Your task to perform on an android device: empty trash in google photos Image 0: 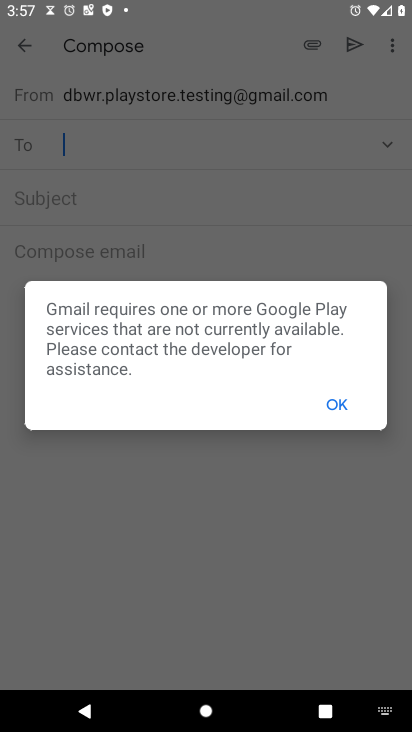
Step 0: click (344, 396)
Your task to perform on an android device: empty trash in google photos Image 1: 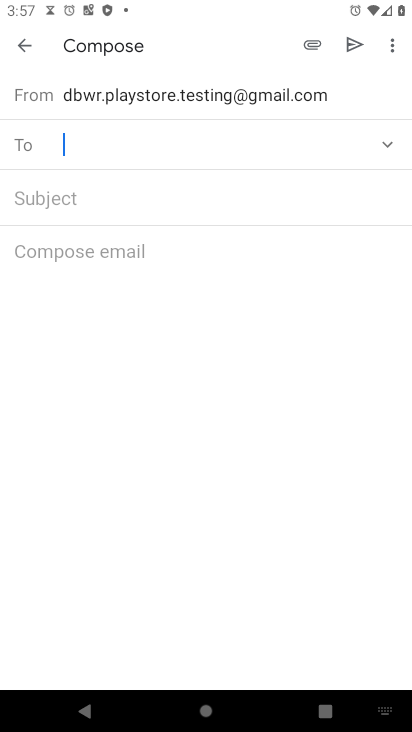
Step 1: press back button
Your task to perform on an android device: empty trash in google photos Image 2: 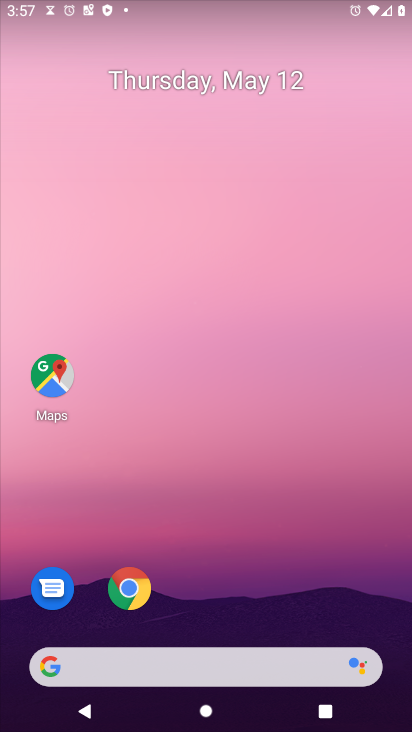
Step 2: drag from (200, 564) to (223, 77)
Your task to perform on an android device: empty trash in google photos Image 3: 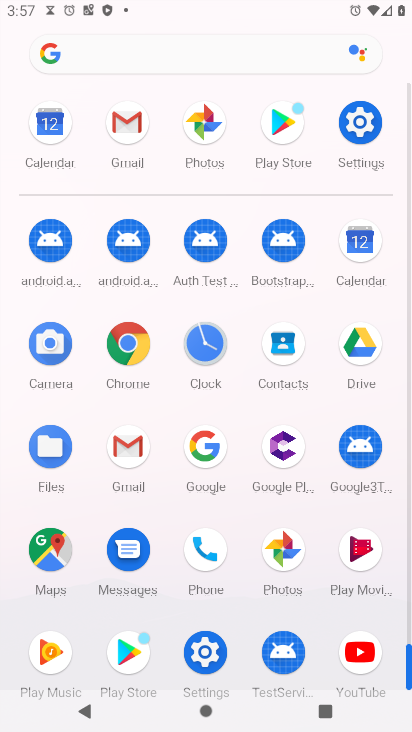
Step 3: click (283, 543)
Your task to perform on an android device: empty trash in google photos Image 4: 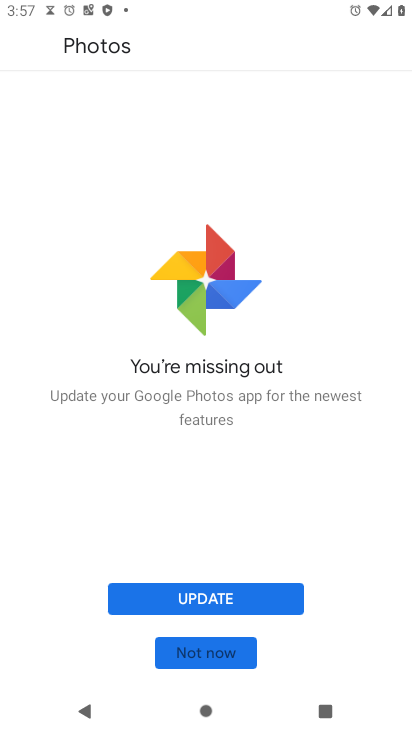
Step 4: click (215, 647)
Your task to perform on an android device: empty trash in google photos Image 5: 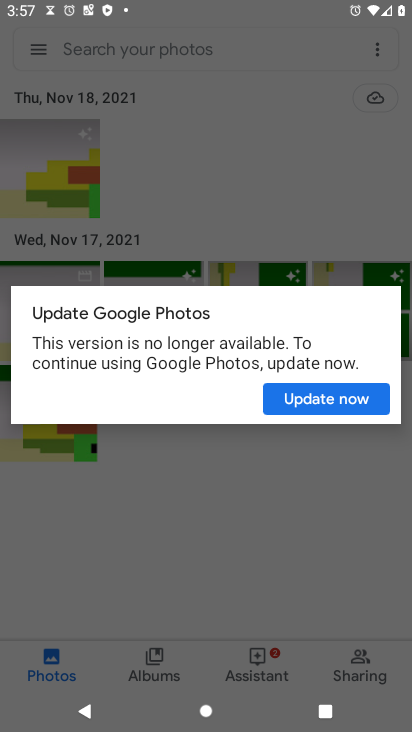
Step 5: click (330, 406)
Your task to perform on an android device: empty trash in google photos Image 6: 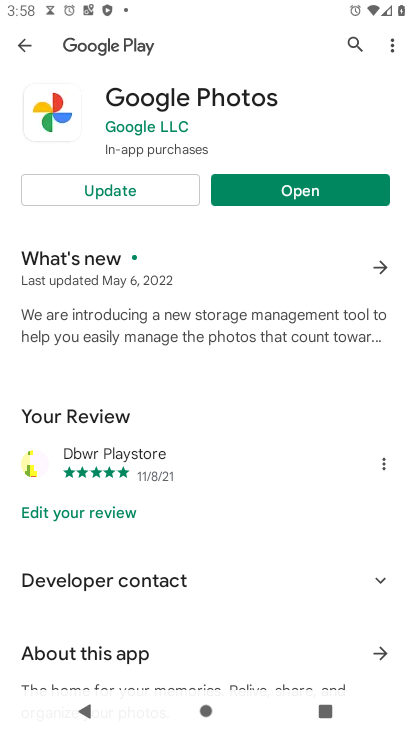
Step 6: click (144, 184)
Your task to perform on an android device: empty trash in google photos Image 7: 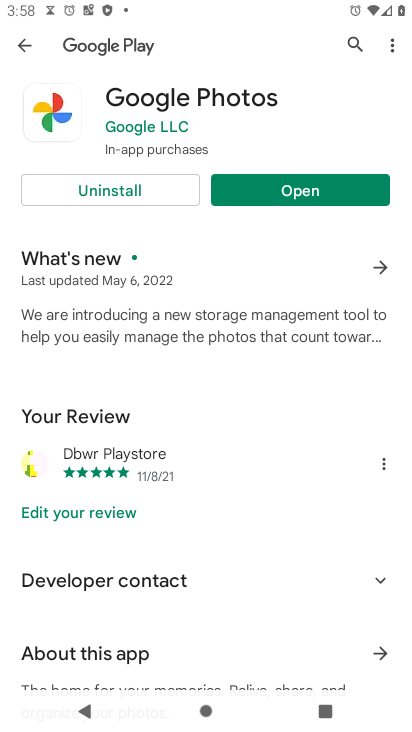
Step 7: click (275, 186)
Your task to perform on an android device: empty trash in google photos Image 8: 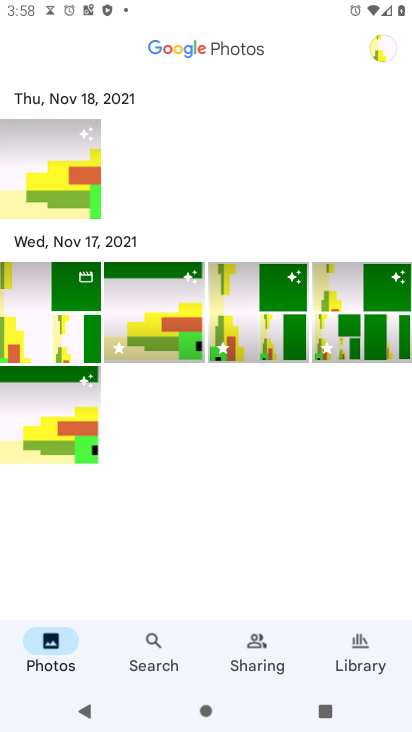
Step 8: click (370, 673)
Your task to perform on an android device: empty trash in google photos Image 9: 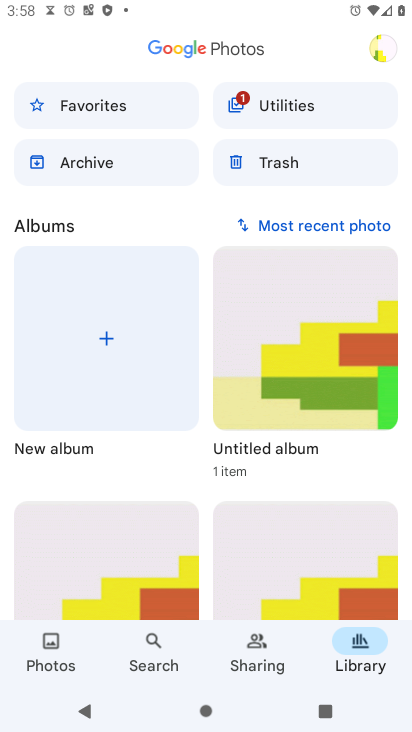
Step 9: click (314, 165)
Your task to perform on an android device: empty trash in google photos Image 10: 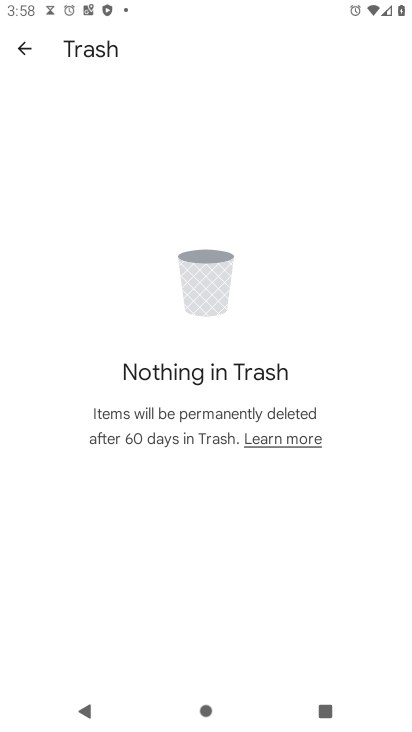
Step 10: task complete